Your task to perform on an android device: Show the shopping cart on costco. Add energizer triple a to the cart on costco, then select checkout. Image 0: 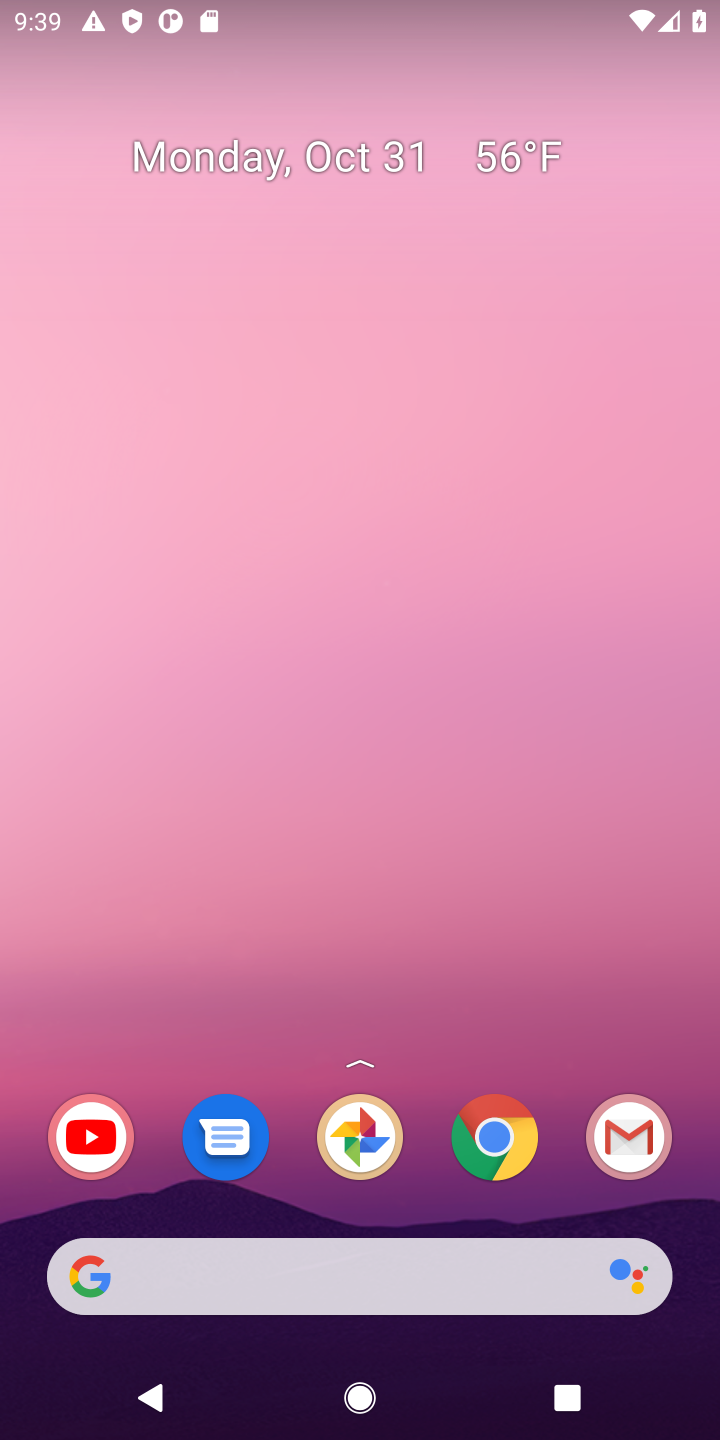
Step 0: click (490, 1144)
Your task to perform on an android device: Show the shopping cart on costco. Add energizer triple a to the cart on costco, then select checkout. Image 1: 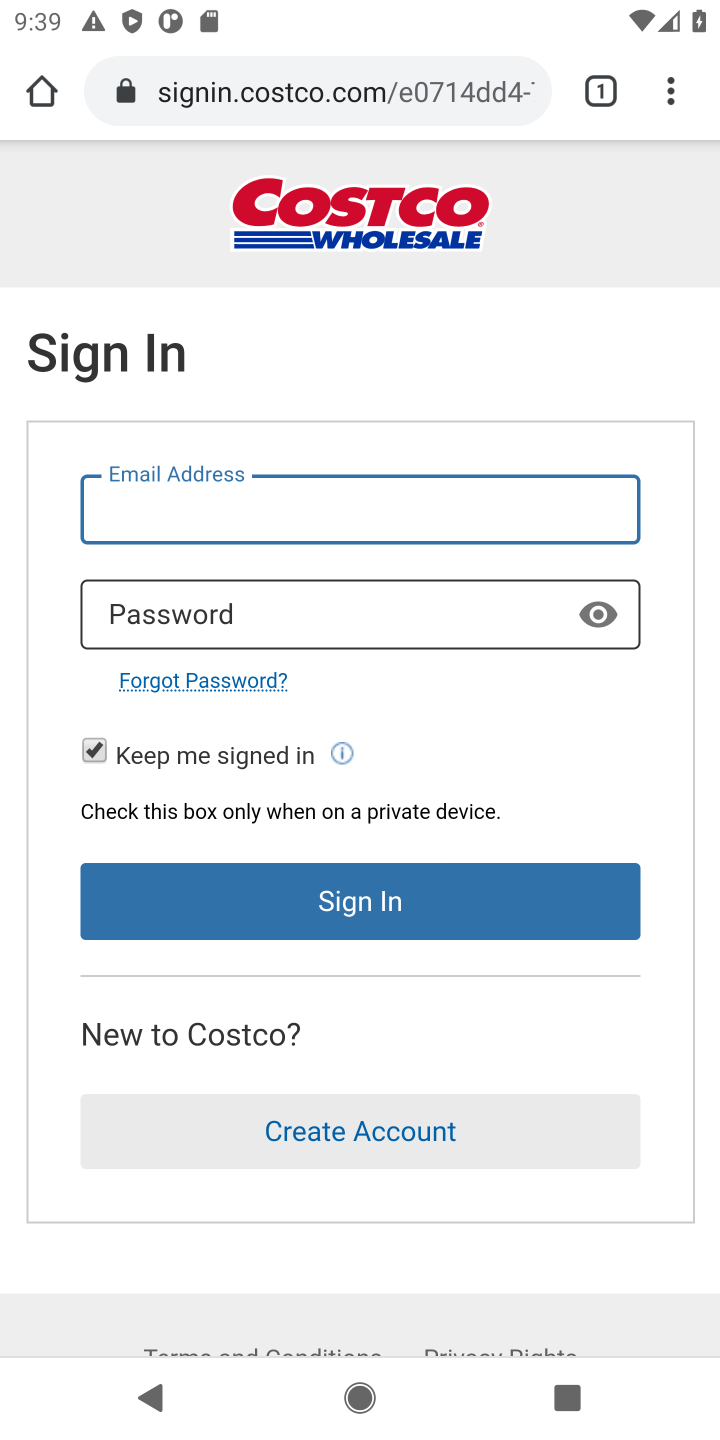
Step 1: click (351, 100)
Your task to perform on an android device: Show the shopping cart on costco. Add energizer triple a to the cart on costco, then select checkout. Image 2: 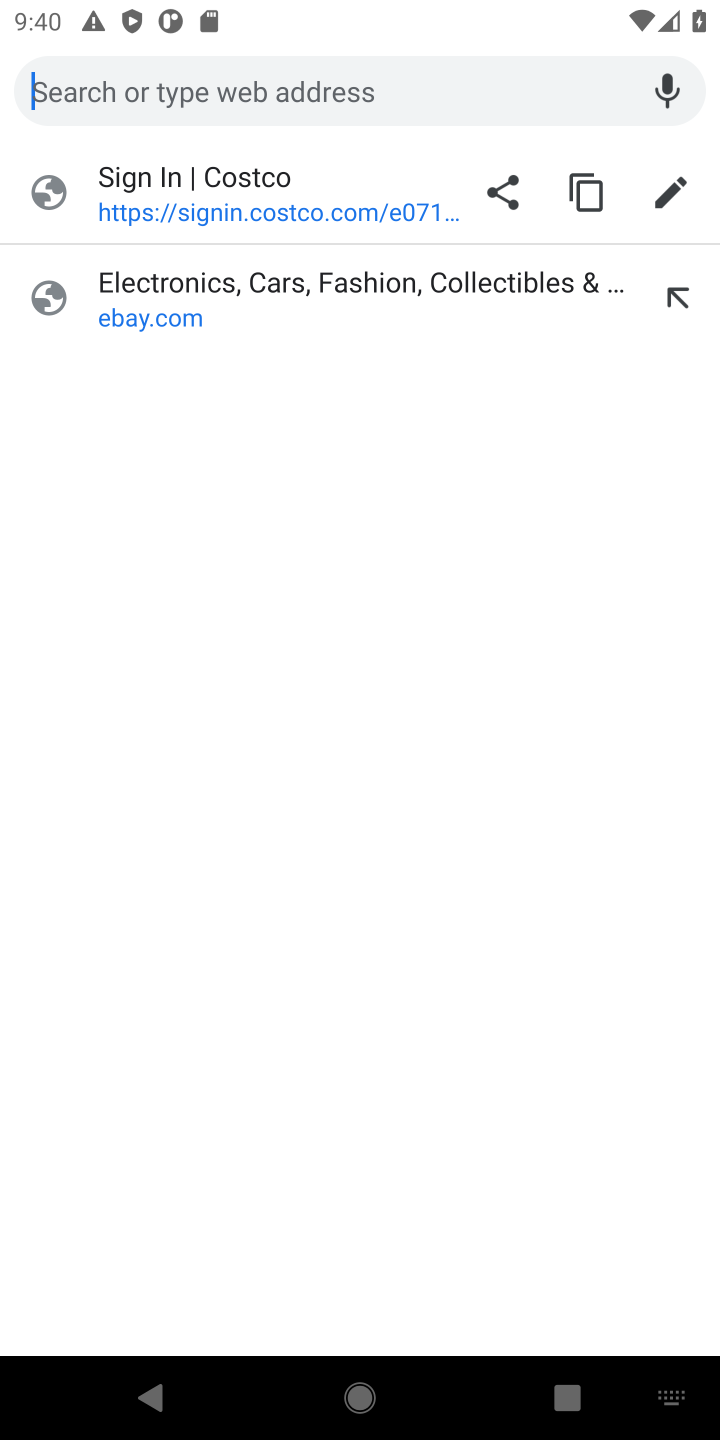
Step 2: type "costco"
Your task to perform on an android device: Show the shopping cart on costco. Add energizer triple a to the cart on costco, then select checkout. Image 3: 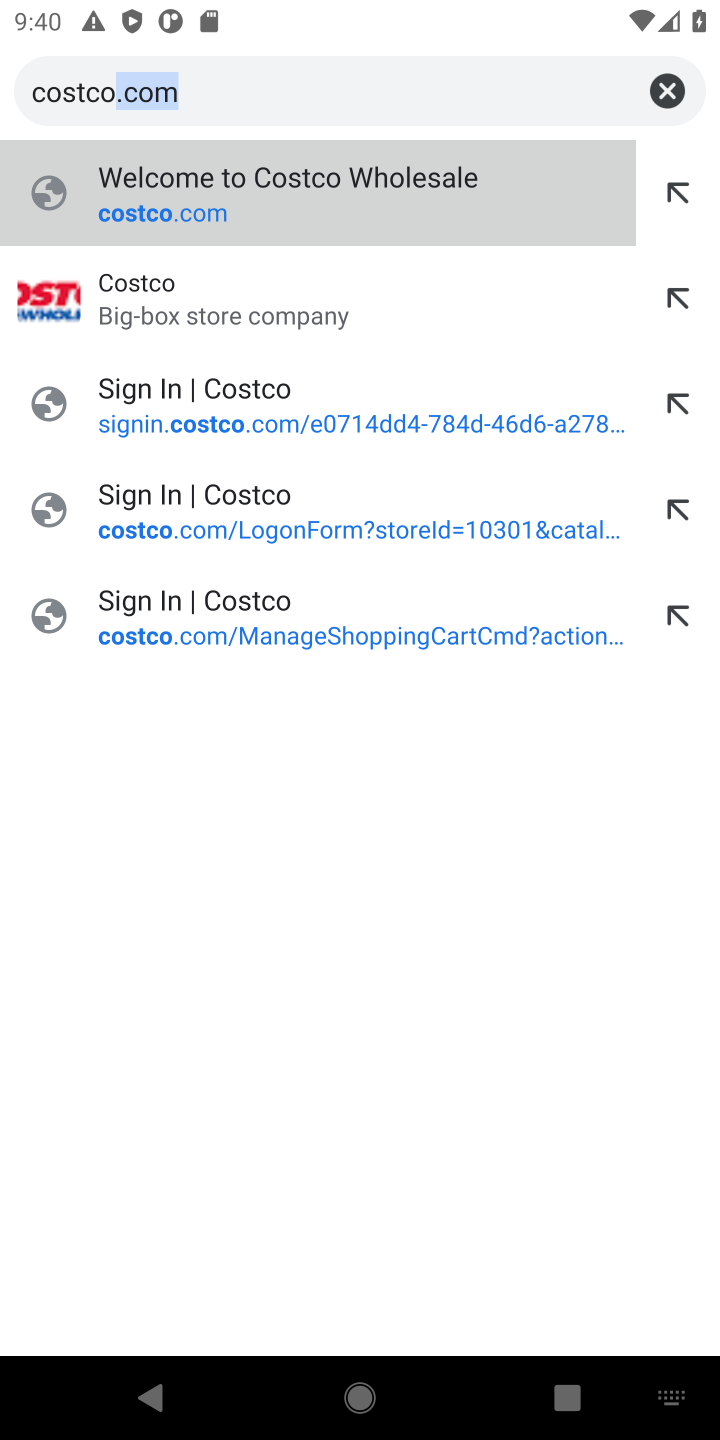
Step 3: click (204, 292)
Your task to perform on an android device: Show the shopping cart on costco. Add energizer triple a to the cart on costco, then select checkout. Image 4: 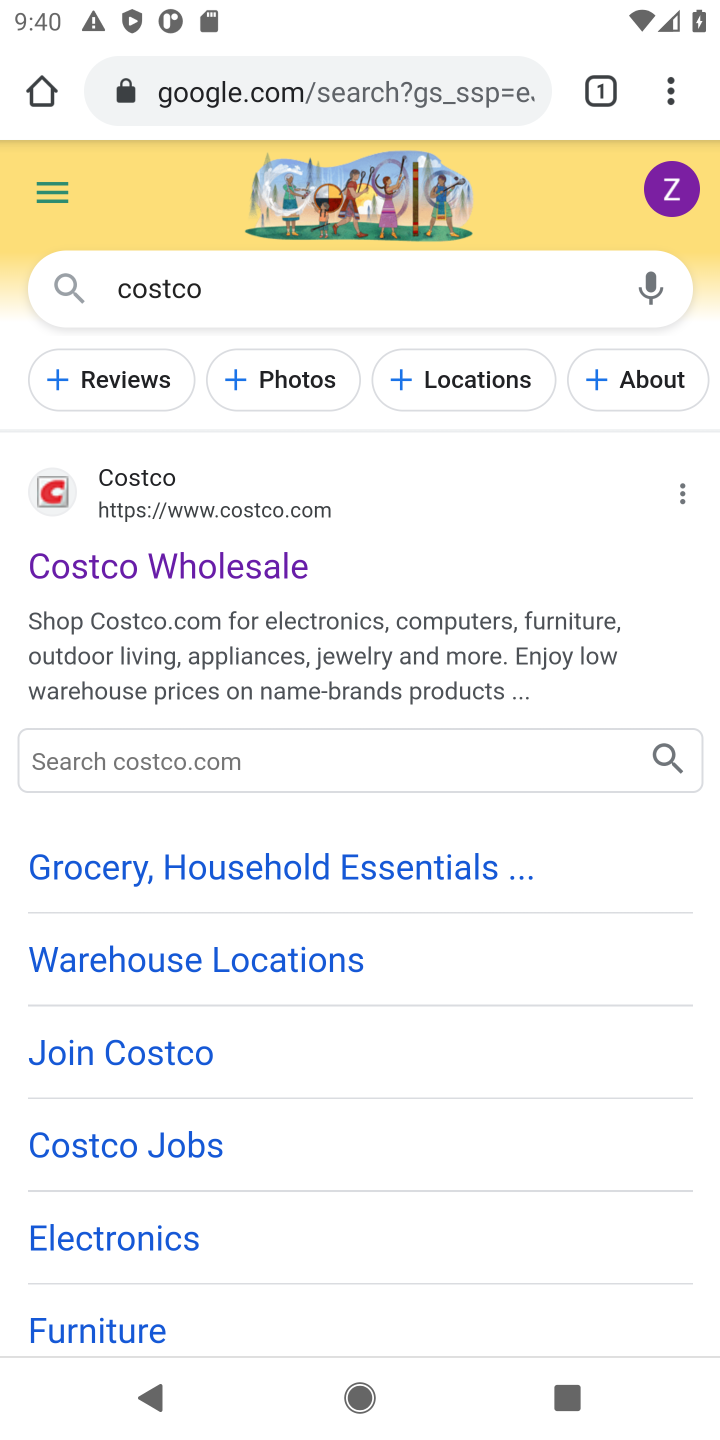
Step 4: click (175, 567)
Your task to perform on an android device: Show the shopping cart on costco. Add energizer triple a to the cart on costco, then select checkout. Image 5: 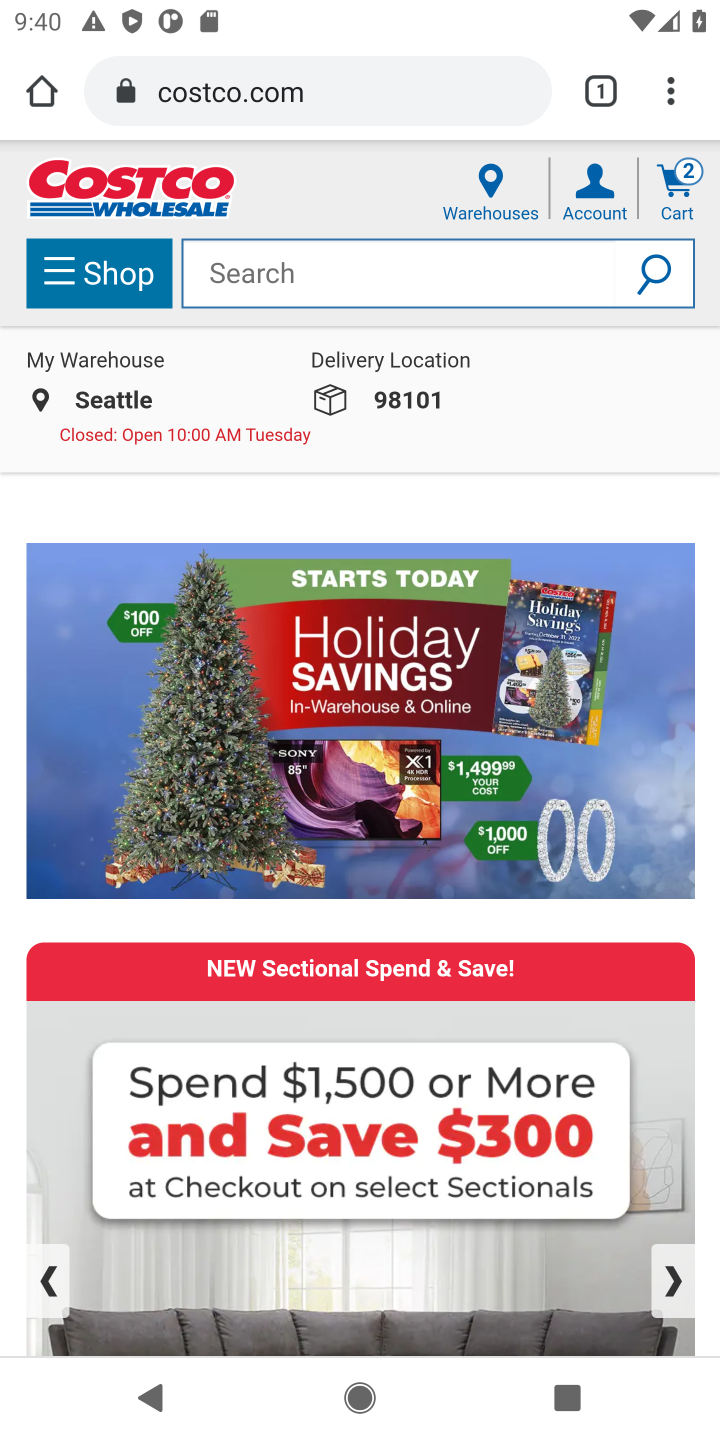
Step 5: click (673, 184)
Your task to perform on an android device: Show the shopping cart on costco. Add energizer triple a to the cart on costco, then select checkout. Image 6: 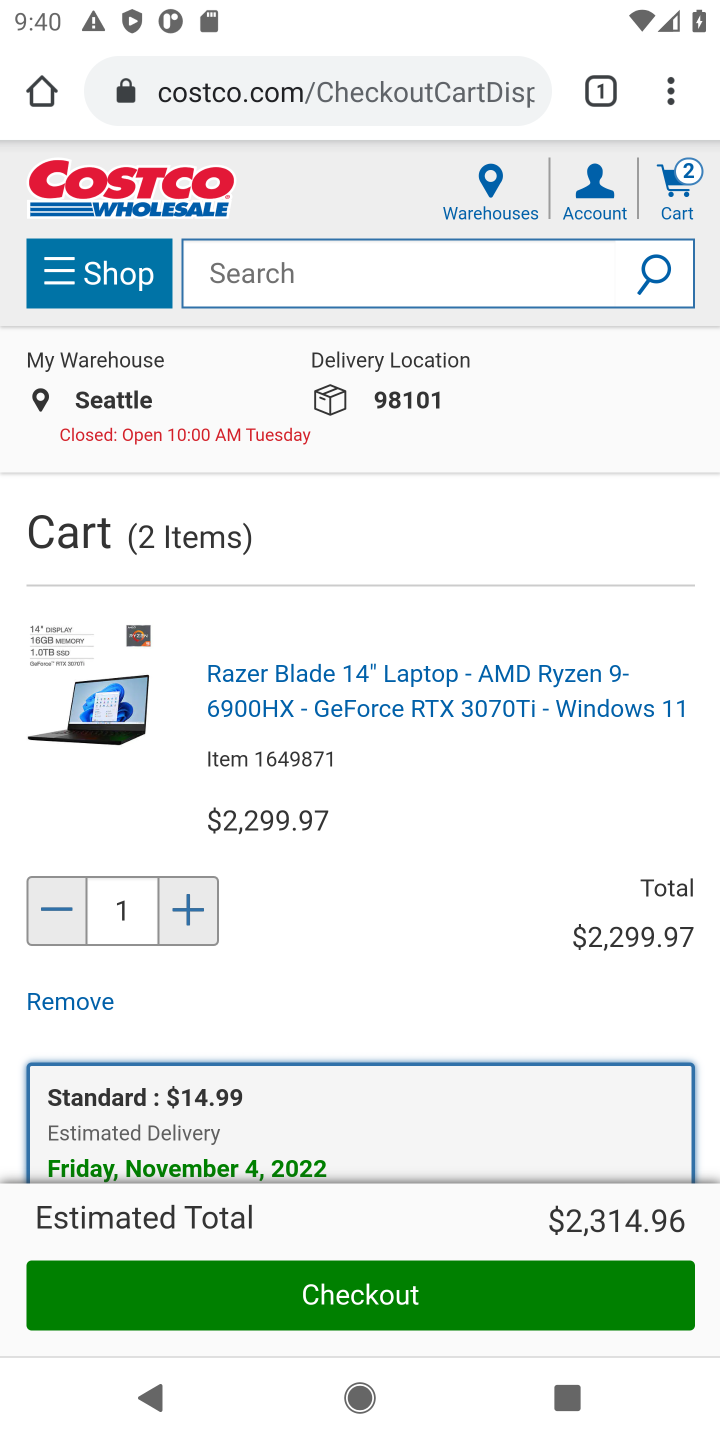
Step 6: click (398, 274)
Your task to perform on an android device: Show the shopping cart on costco. Add energizer triple a to the cart on costco, then select checkout. Image 7: 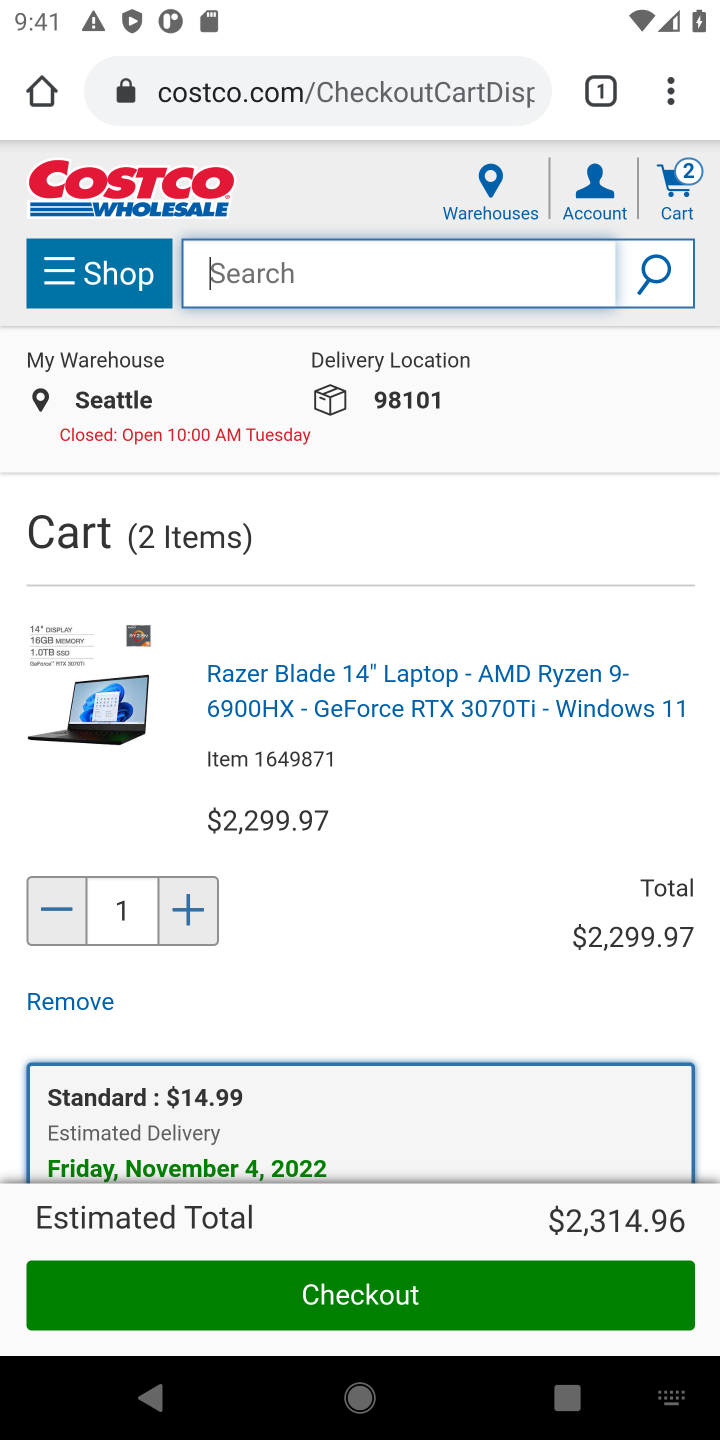
Step 7: type "energizer triple a"
Your task to perform on an android device: Show the shopping cart on costco. Add energizer triple a to the cart on costco, then select checkout. Image 8: 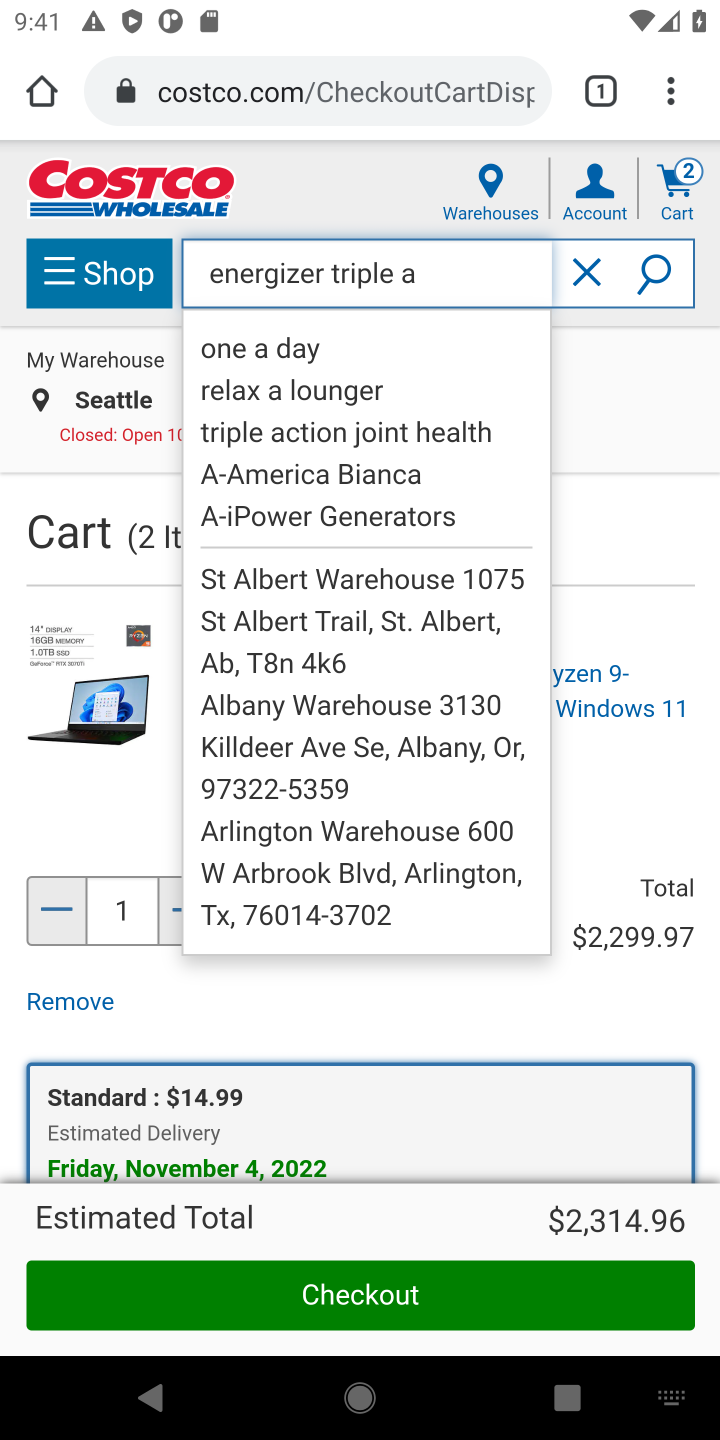
Step 8: click (664, 280)
Your task to perform on an android device: Show the shopping cart on costco. Add energizer triple a to the cart on costco, then select checkout. Image 9: 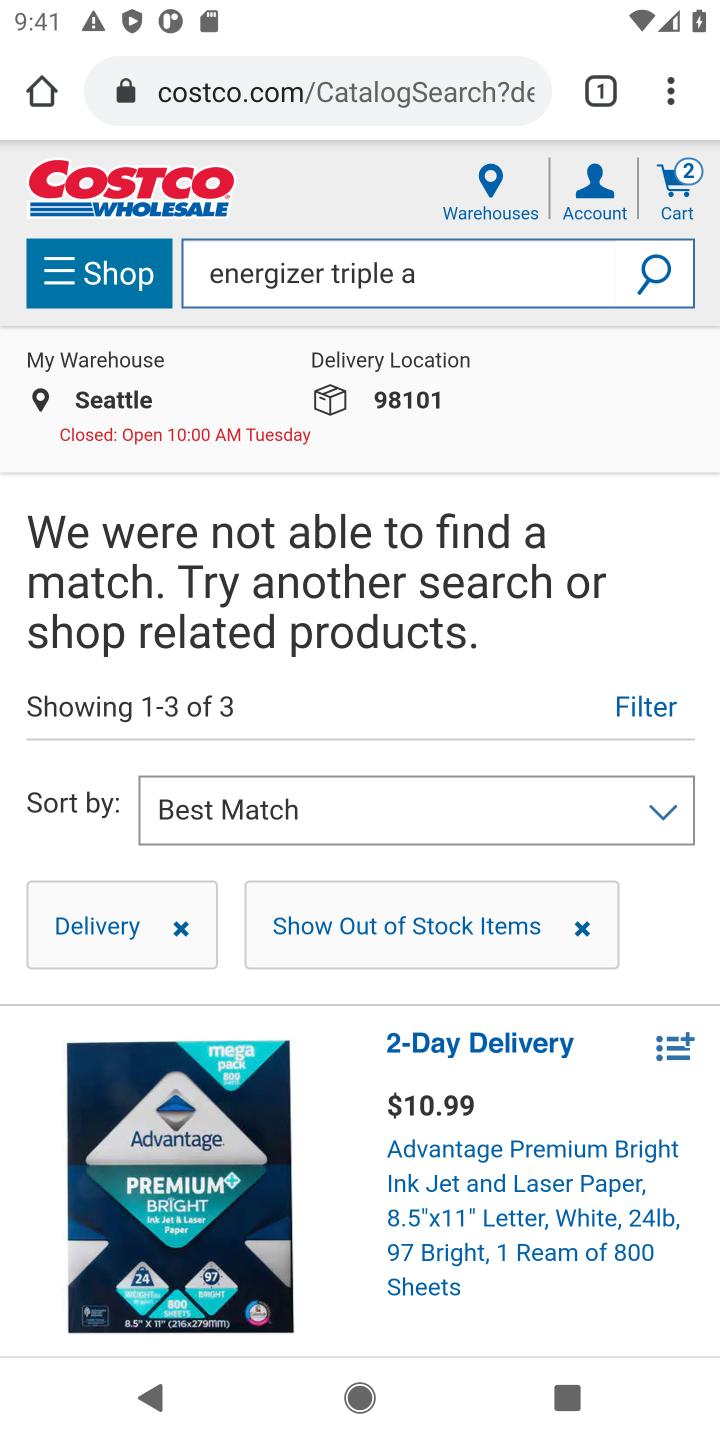
Step 9: task complete